Your task to perform on an android device: turn on airplane mode Image 0: 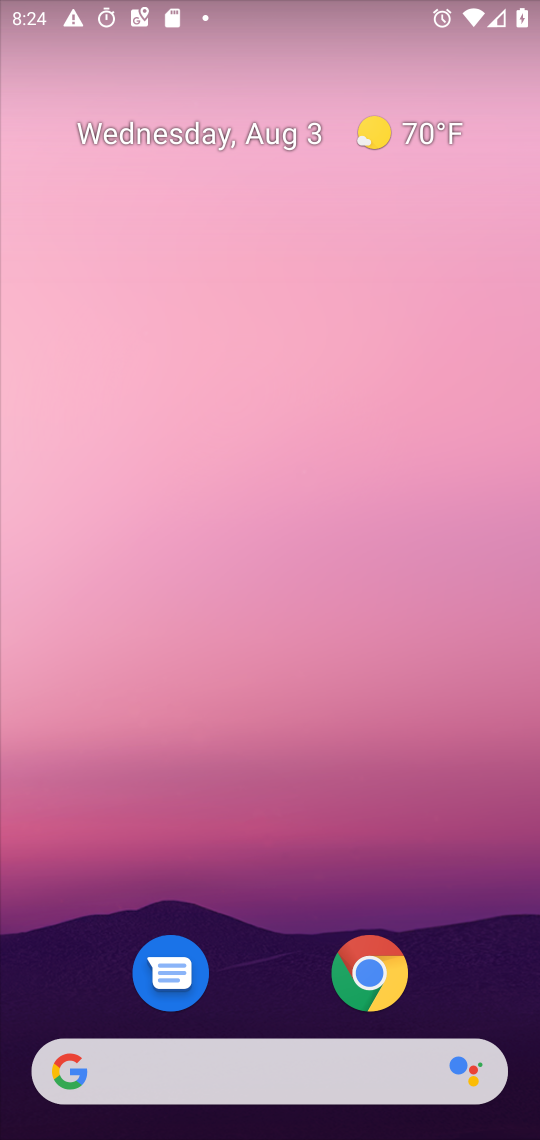
Step 0: drag from (288, 1) to (333, 581)
Your task to perform on an android device: turn on airplane mode Image 1: 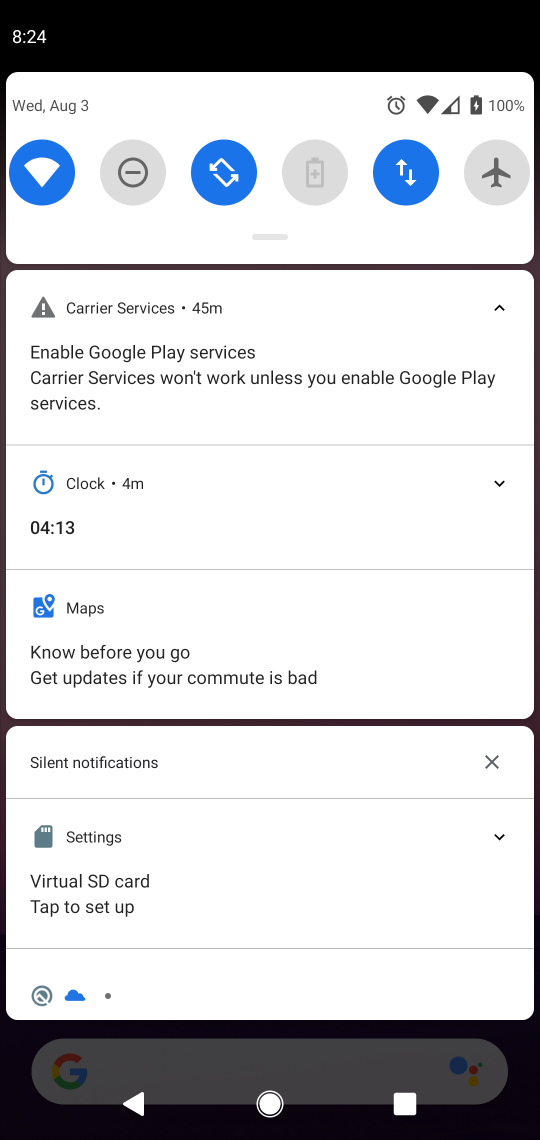
Step 1: click (493, 178)
Your task to perform on an android device: turn on airplane mode Image 2: 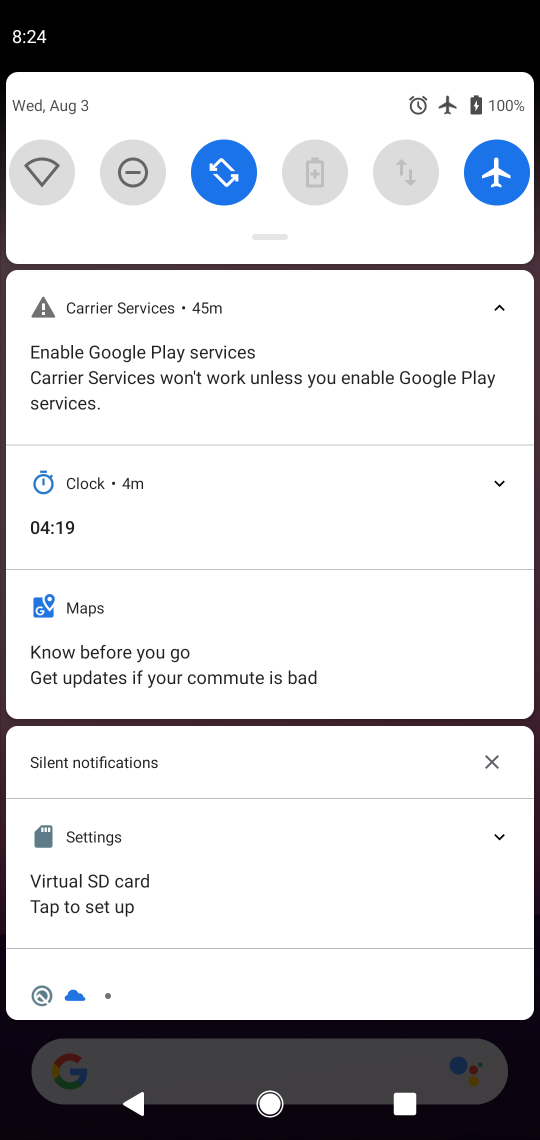
Step 2: task complete